Your task to perform on an android device: remove spam from my inbox in the gmail app Image 0: 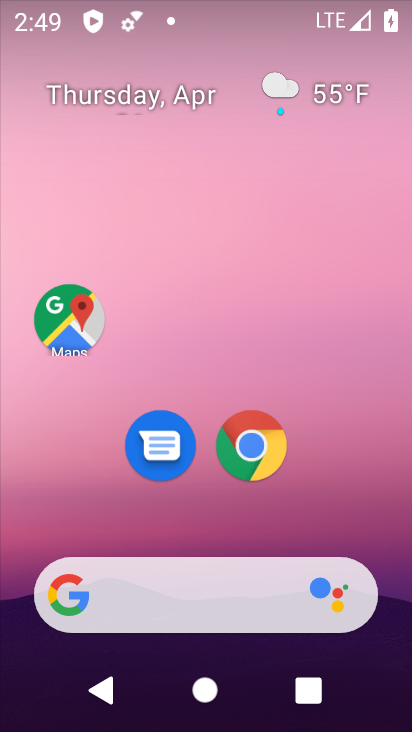
Step 0: drag from (332, 532) to (235, 5)
Your task to perform on an android device: remove spam from my inbox in the gmail app Image 1: 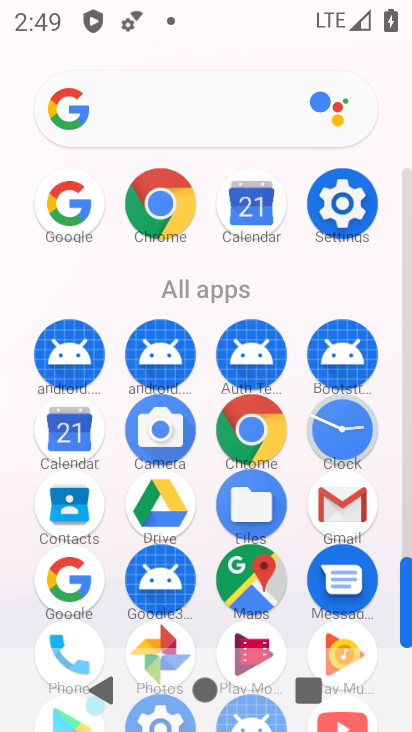
Step 1: click (346, 507)
Your task to perform on an android device: remove spam from my inbox in the gmail app Image 2: 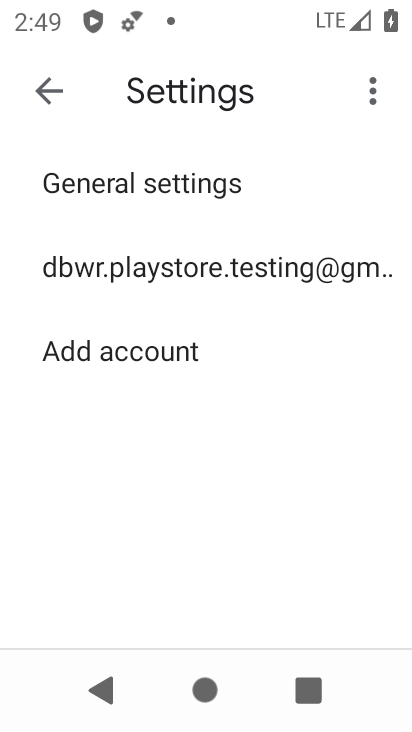
Step 2: press back button
Your task to perform on an android device: remove spam from my inbox in the gmail app Image 3: 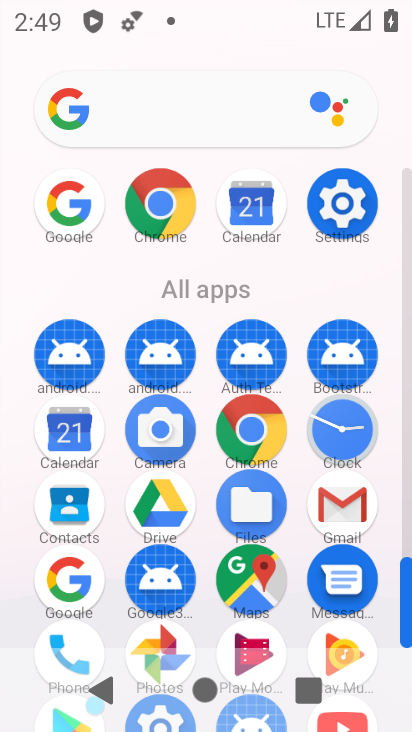
Step 3: click (346, 503)
Your task to perform on an android device: remove spam from my inbox in the gmail app Image 4: 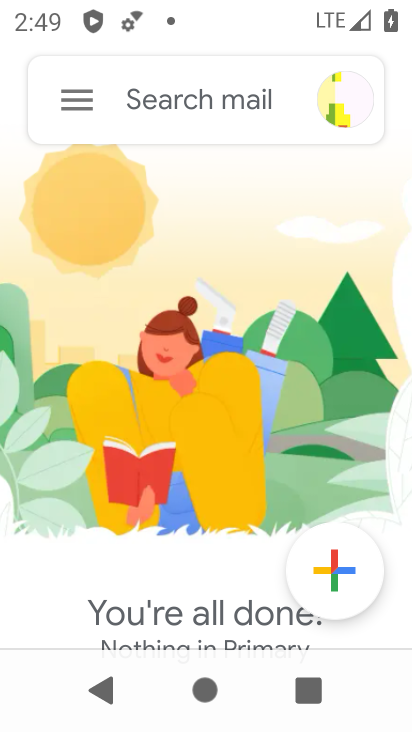
Step 4: click (65, 98)
Your task to perform on an android device: remove spam from my inbox in the gmail app Image 5: 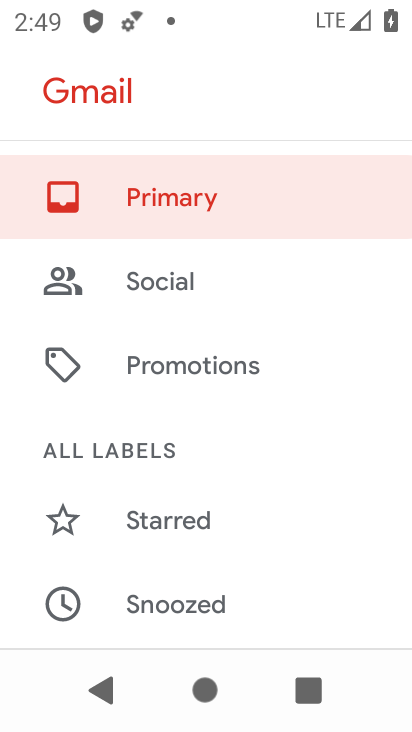
Step 5: drag from (214, 468) to (230, 353)
Your task to perform on an android device: remove spam from my inbox in the gmail app Image 6: 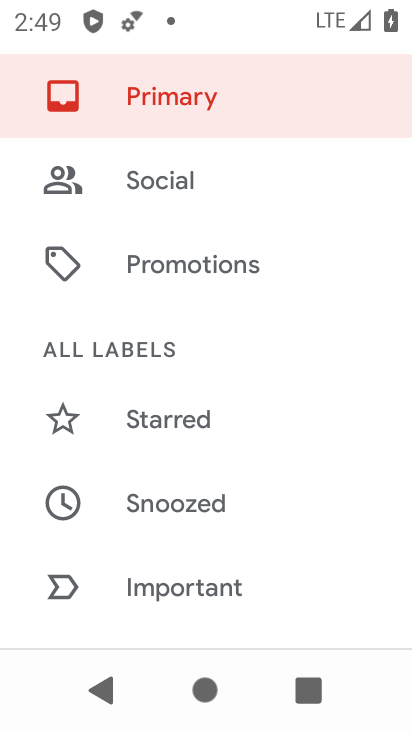
Step 6: drag from (220, 422) to (243, 365)
Your task to perform on an android device: remove spam from my inbox in the gmail app Image 7: 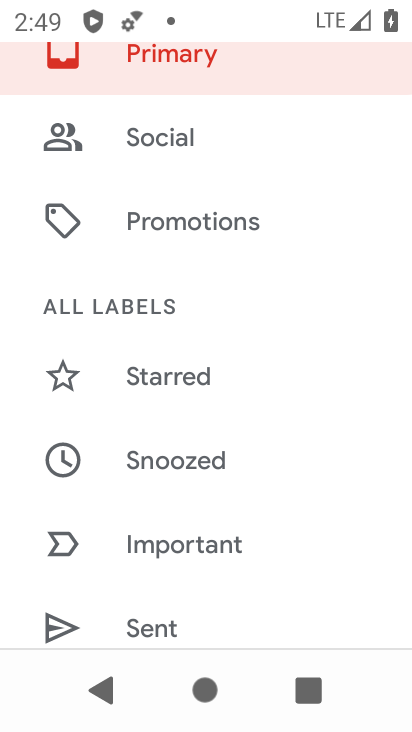
Step 7: drag from (196, 433) to (224, 335)
Your task to perform on an android device: remove spam from my inbox in the gmail app Image 8: 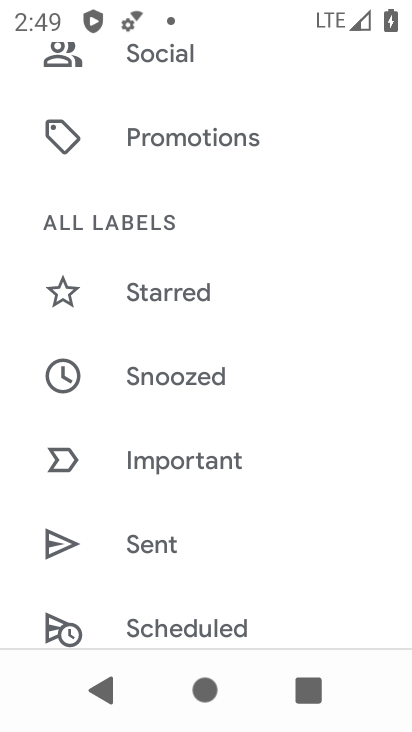
Step 8: drag from (216, 412) to (239, 364)
Your task to perform on an android device: remove spam from my inbox in the gmail app Image 9: 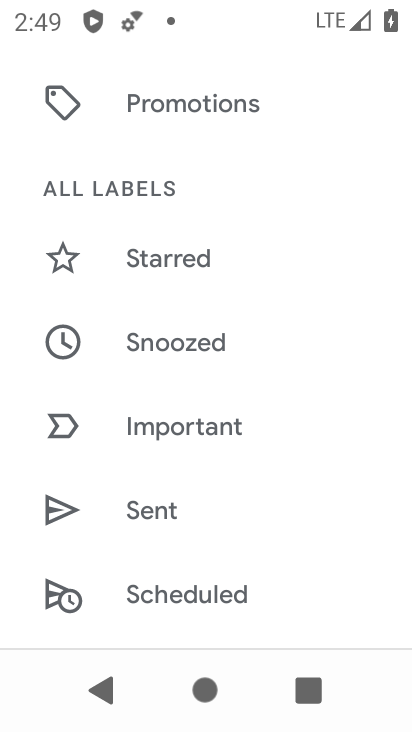
Step 9: click (252, 403)
Your task to perform on an android device: remove spam from my inbox in the gmail app Image 10: 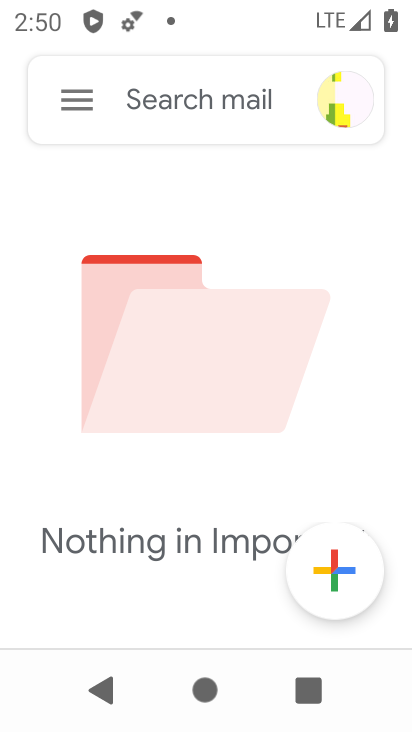
Step 10: click (81, 114)
Your task to perform on an android device: remove spam from my inbox in the gmail app Image 11: 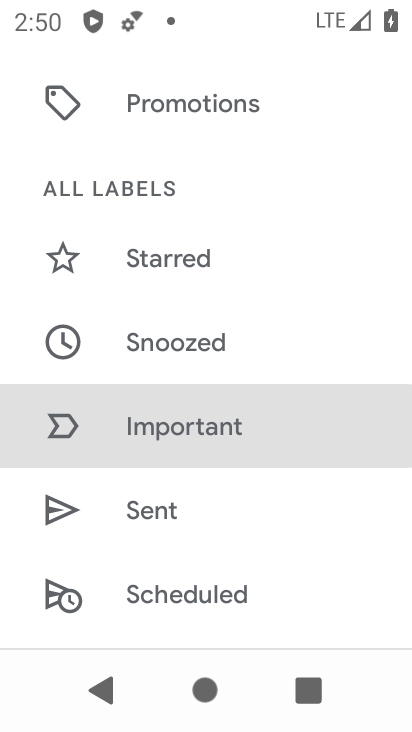
Step 11: drag from (181, 501) to (214, 342)
Your task to perform on an android device: remove spam from my inbox in the gmail app Image 12: 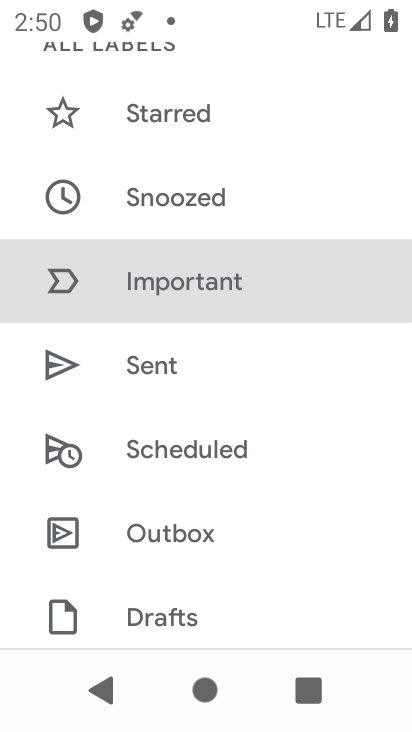
Step 12: drag from (207, 492) to (215, 391)
Your task to perform on an android device: remove spam from my inbox in the gmail app Image 13: 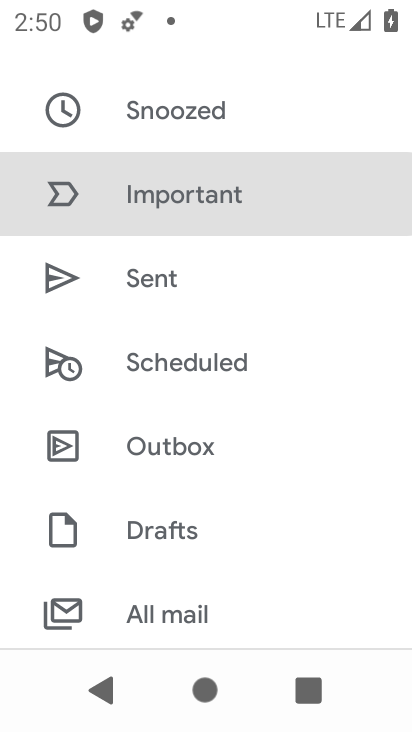
Step 13: drag from (205, 523) to (221, 386)
Your task to perform on an android device: remove spam from my inbox in the gmail app Image 14: 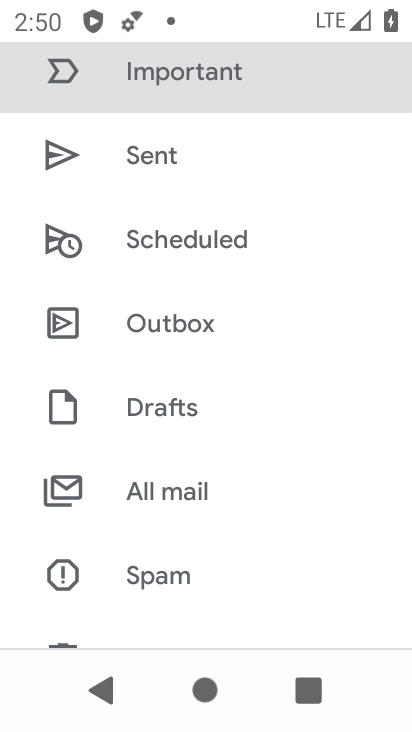
Step 14: drag from (224, 536) to (223, 398)
Your task to perform on an android device: remove spam from my inbox in the gmail app Image 15: 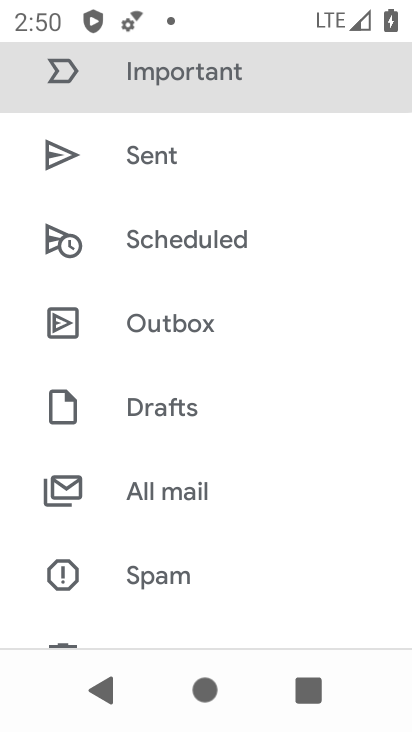
Step 15: click (258, 576)
Your task to perform on an android device: remove spam from my inbox in the gmail app Image 16: 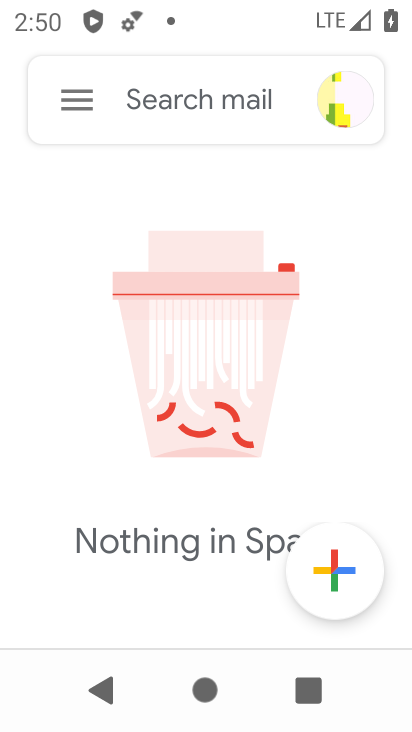
Step 16: click (93, 108)
Your task to perform on an android device: remove spam from my inbox in the gmail app Image 17: 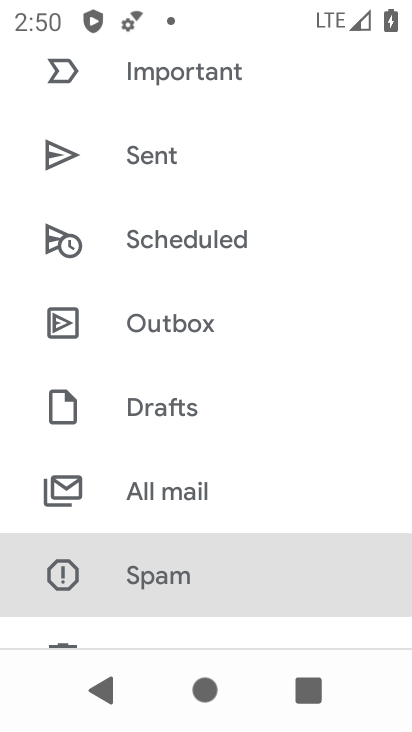
Step 17: drag from (246, 230) to (289, 401)
Your task to perform on an android device: remove spam from my inbox in the gmail app Image 18: 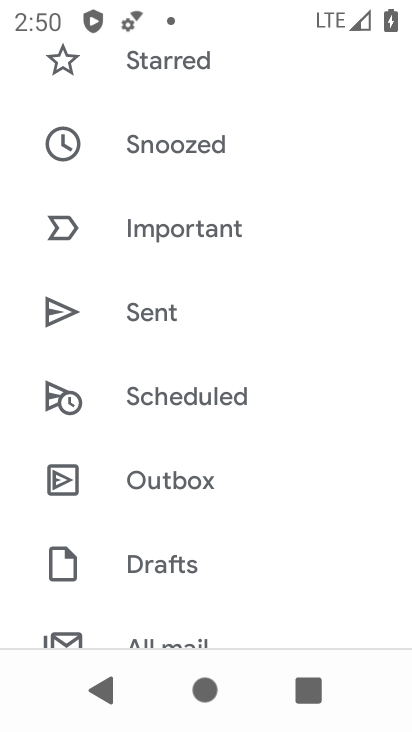
Step 18: drag from (256, 217) to (284, 340)
Your task to perform on an android device: remove spam from my inbox in the gmail app Image 19: 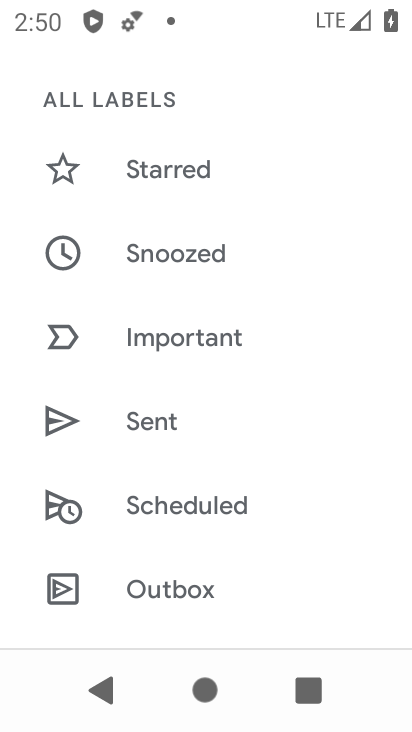
Step 19: drag from (259, 223) to (283, 359)
Your task to perform on an android device: remove spam from my inbox in the gmail app Image 20: 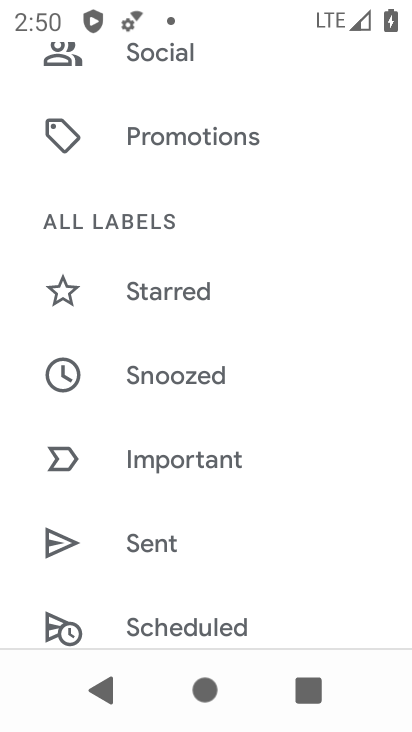
Step 20: drag from (256, 220) to (286, 384)
Your task to perform on an android device: remove spam from my inbox in the gmail app Image 21: 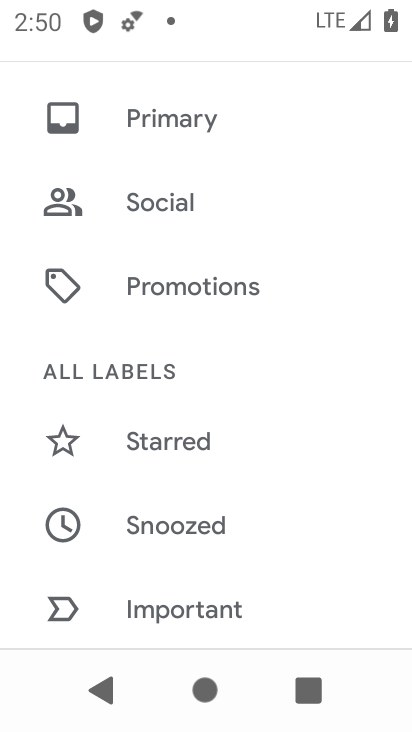
Step 21: click (184, 113)
Your task to perform on an android device: remove spam from my inbox in the gmail app Image 22: 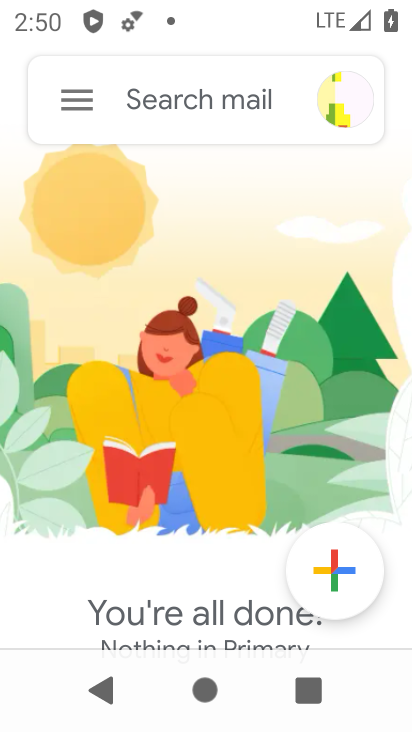
Step 22: click (75, 101)
Your task to perform on an android device: remove spam from my inbox in the gmail app Image 23: 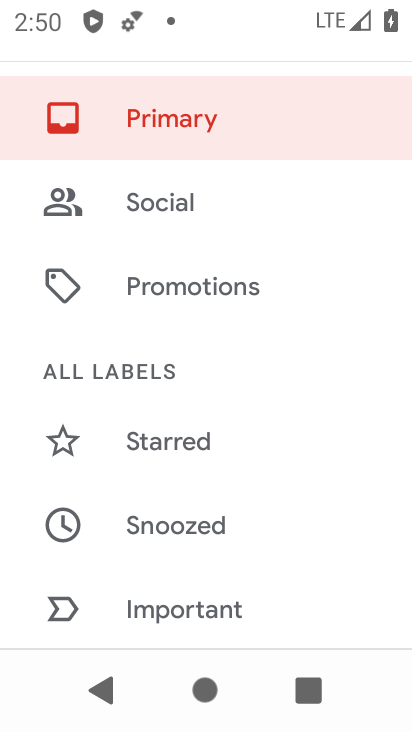
Step 23: task complete